Your task to perform on an android device: turn on wifi Image 0: 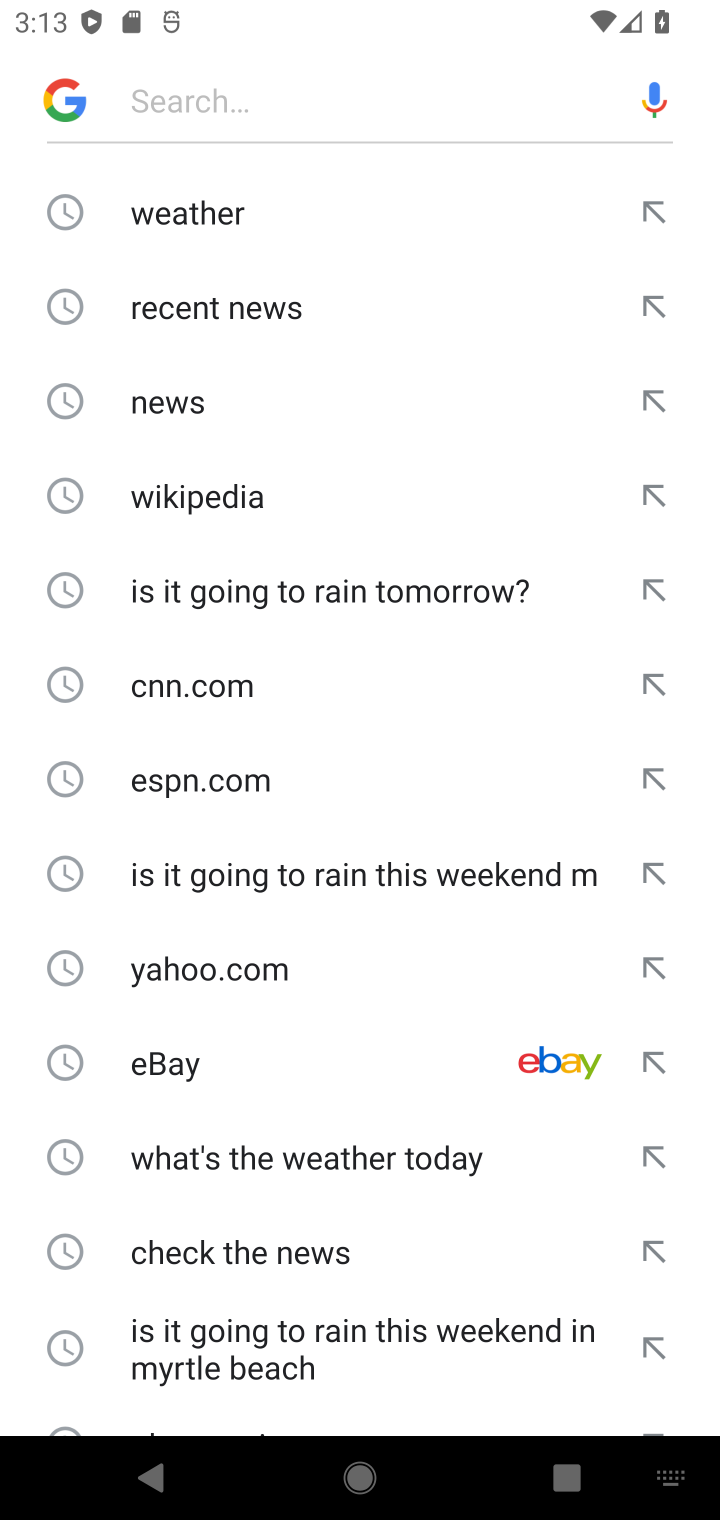
Step 0: press home button
Your task to perform on an android device: turn on wifi Image 1: 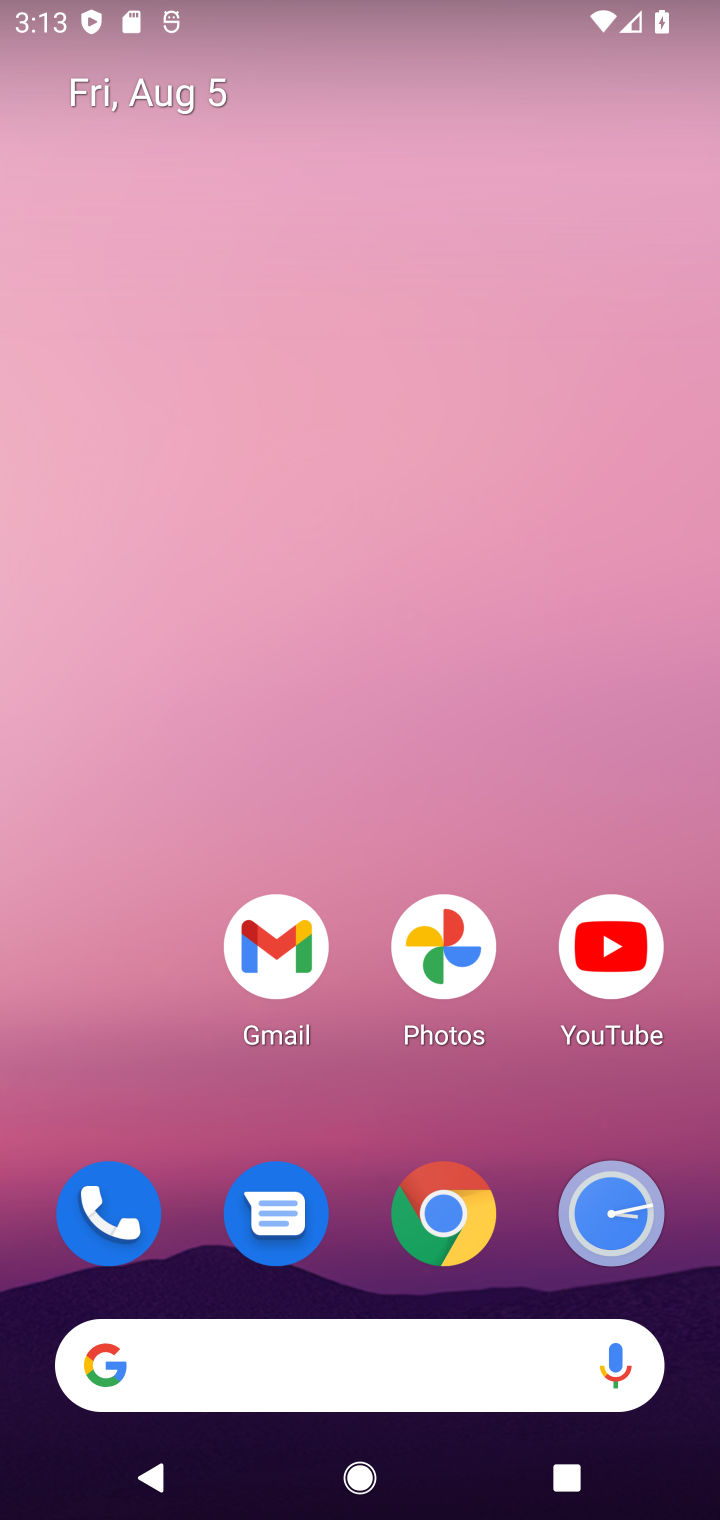
Step 1: drag from (95, 1073) to (212, 56)
Your task to perform on an android device: turn on wifi Image 2: 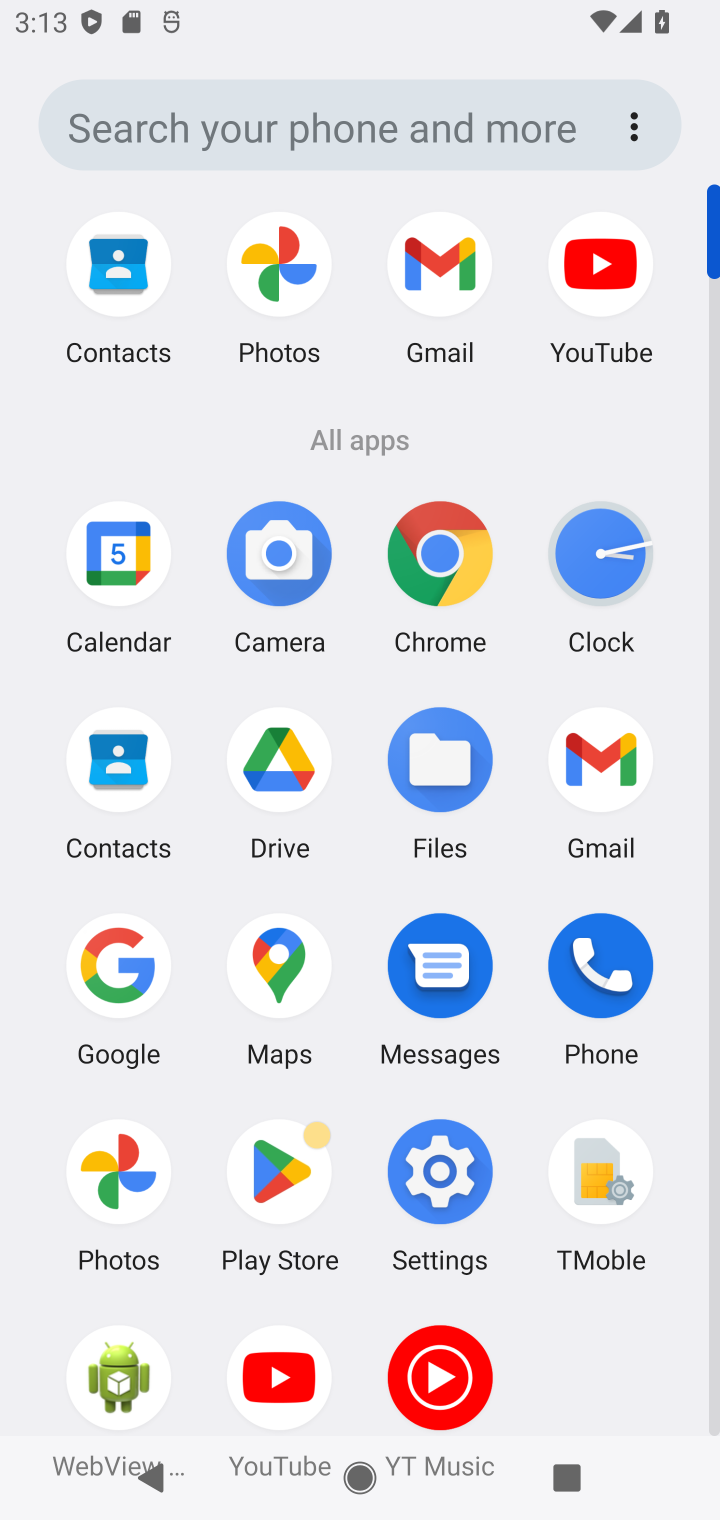
Step 2: click (435, 1177)
Your task to perform on an android device: turn on wifi Image 3: 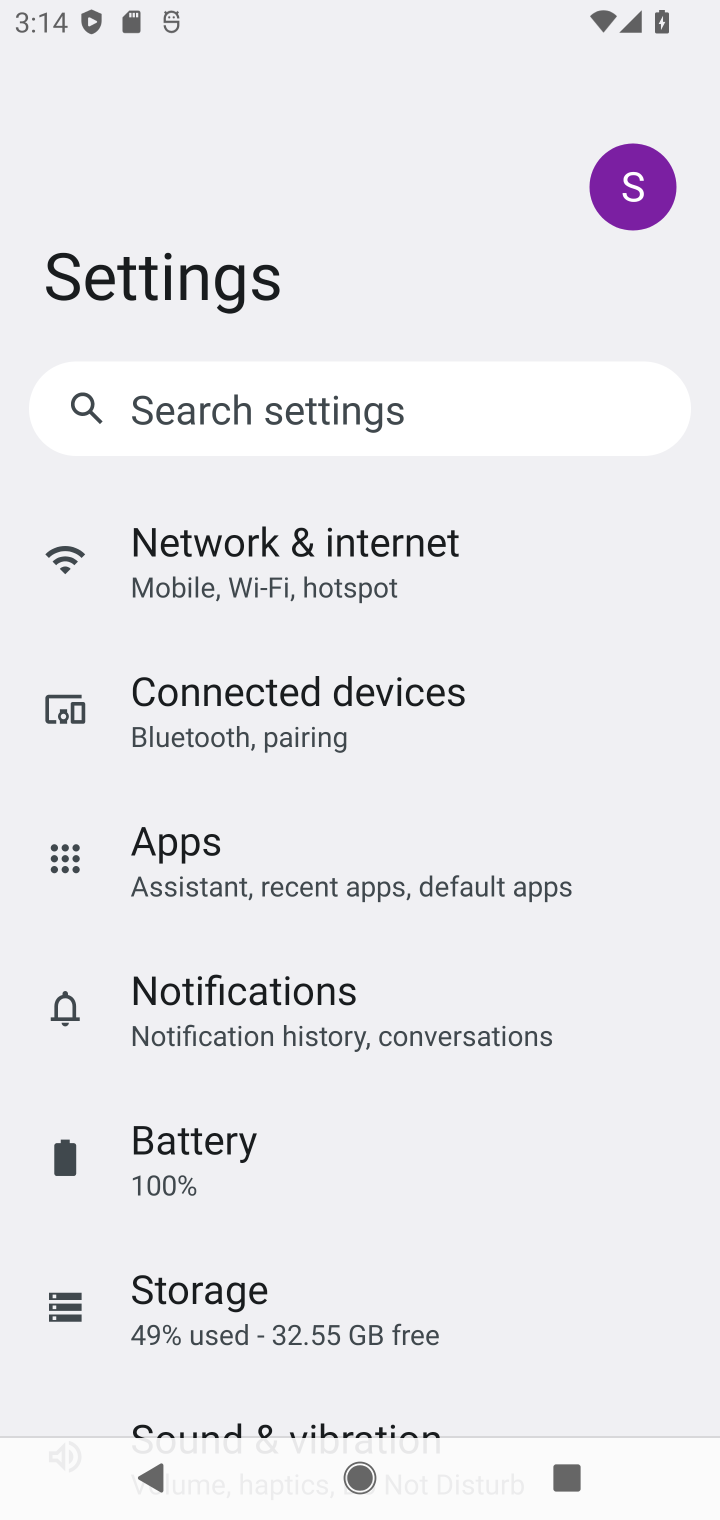
Step 3: click (374, 562)
Your task to perform on an android device: turn on wifi Image 4: 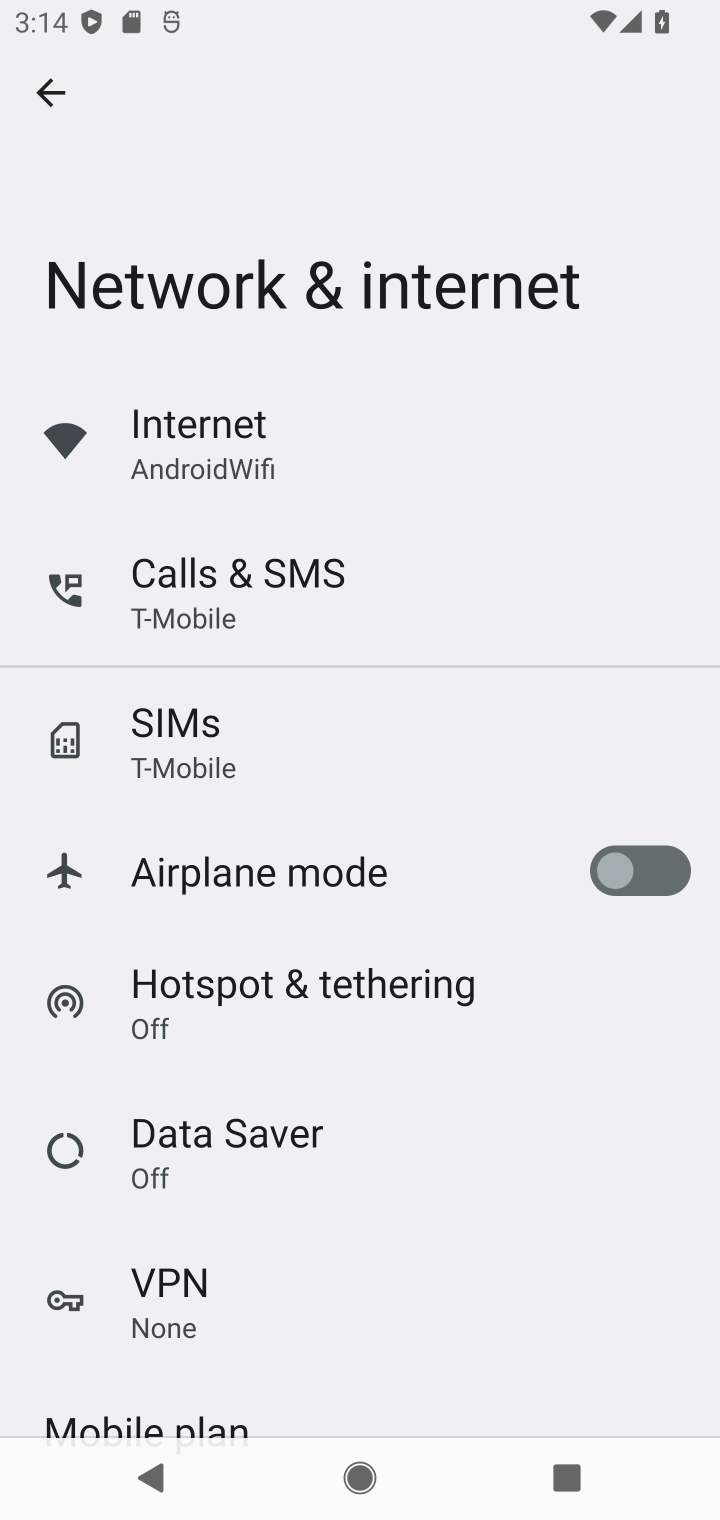
Step 4: click (321, 433)
Your task to perform on an android device: turn on wifi Image 5: 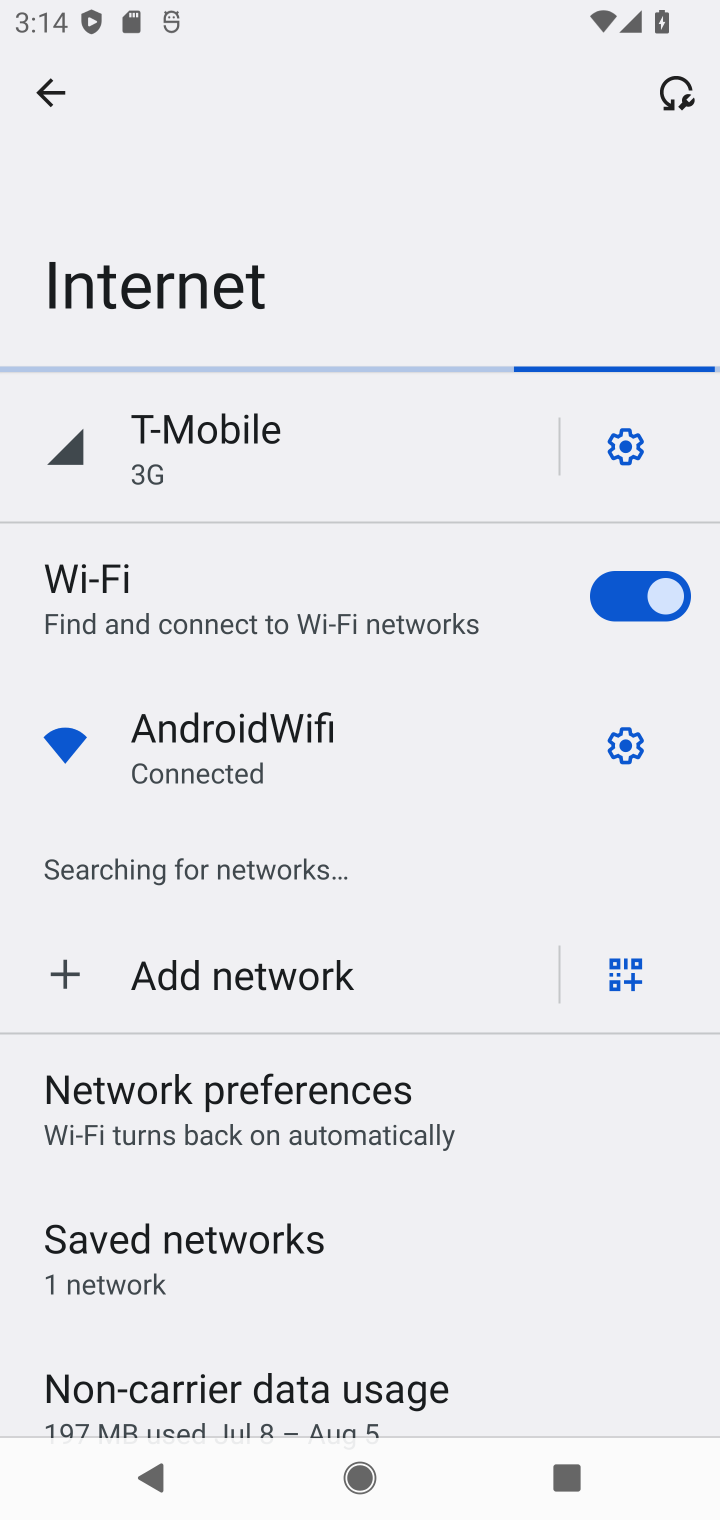
Step 5: task complete